Your task to perform on an android device: Open Youtube and go to "Your channel" Image 0: 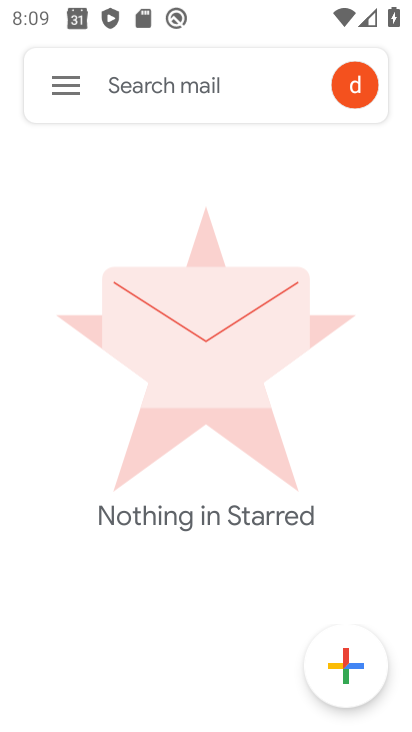
Step 0: press back button
Your task to perform on an android device: Open Youtube and go to "Your channel" Image 1: 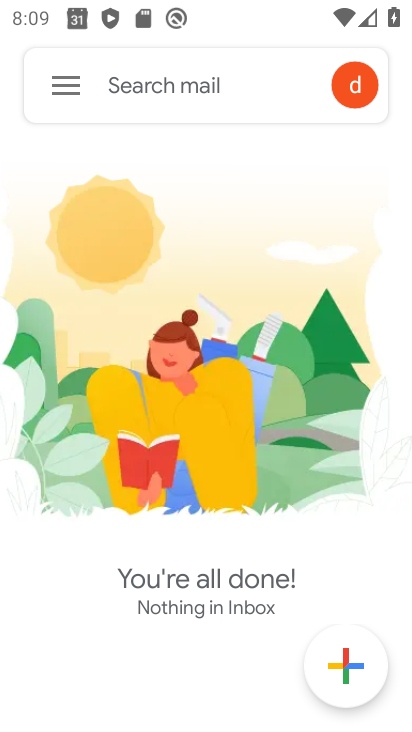
Step 1: press back button
Your task to perform on an android device: Open Youtube and go to "Your channel" Image 2: 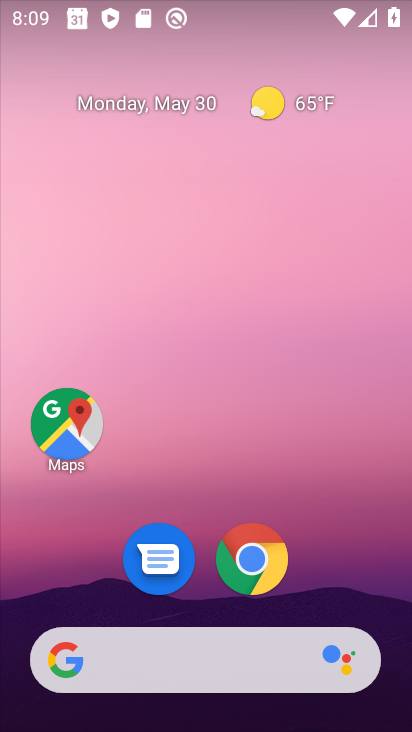
Step 2: drag from (185, 578) to (215, 14)
Your task to perform on an android device: Open Youtube and go to "Your channel" Image 3: 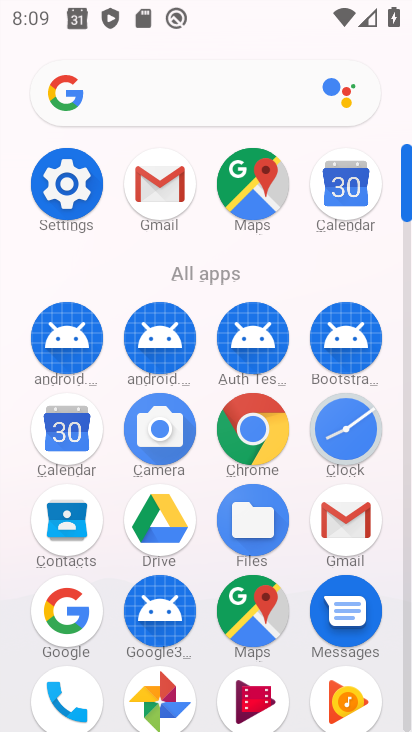
Step 3: drag from (220, 582) to (297, 79)
Your task to perform on an android device: Open Youtube and go to "Your channel" Image 4: 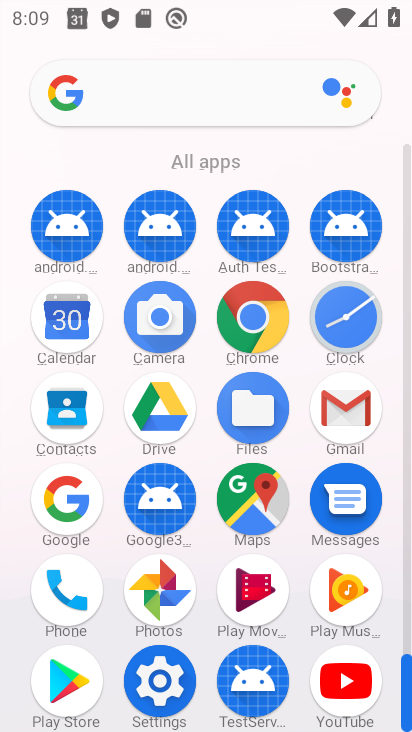
Step 4: click (340, 668)
Your task to perform on an android device: Open Youtube and go to "Your channel" Image 5: 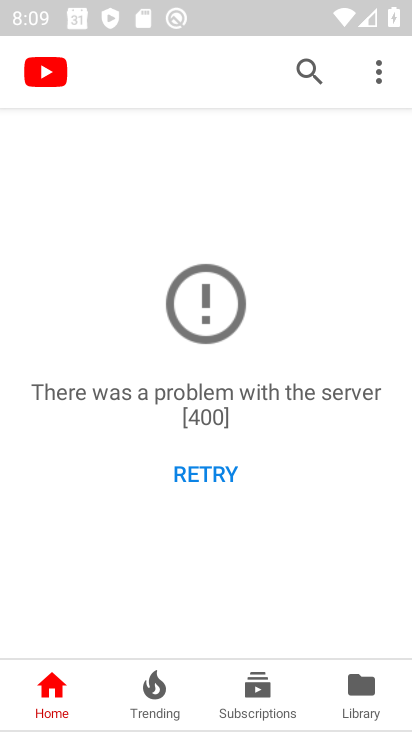
Step 5: click (362, 692)
Your task to perform on an android device: Open Youtube and go to "Your channel" Image 6: 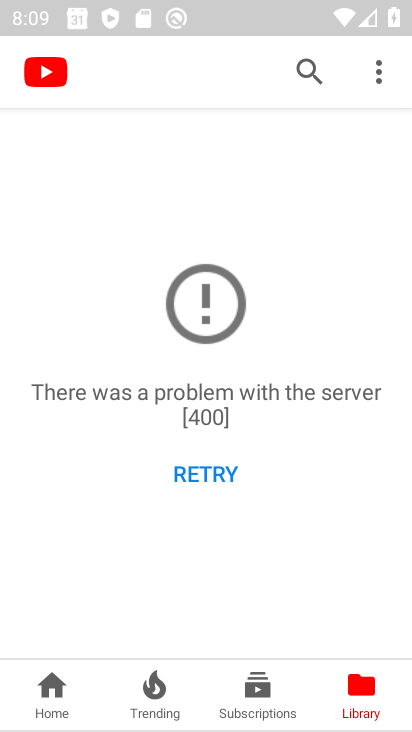
Step 6: click (360, 690)
Your task to perform on an android device: Open Youtube and go to "Your channel" Image 7: 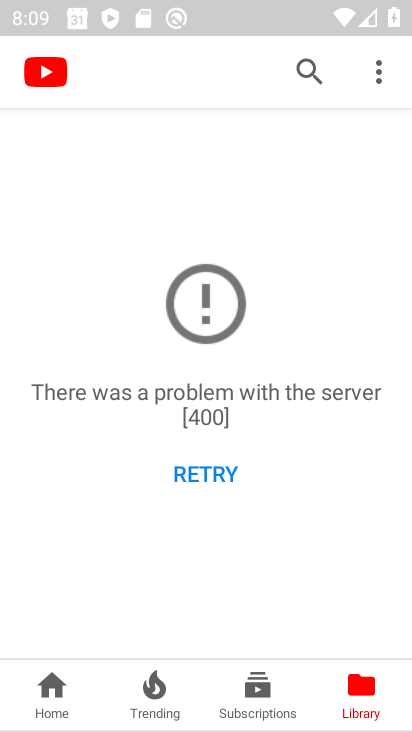
Step 7: task complete